Your task to perform on an android device: open a bookmark in the chrome app Image 0: 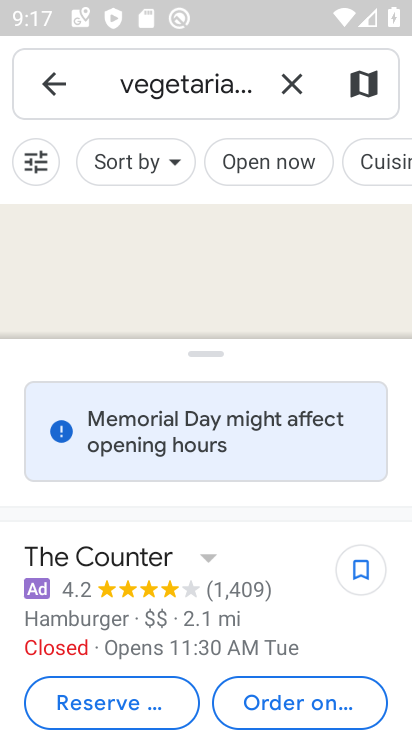
Step 0: press home button
Your task to perform on an android device: open a bookmark in the chrome app Image 1: 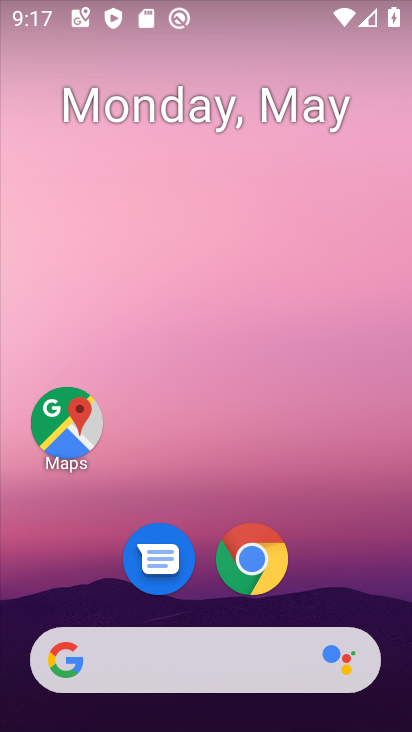
Step 1: click (254, 561)
Your task to perform on an android device: open a bookmark in the chrome app Image 2: 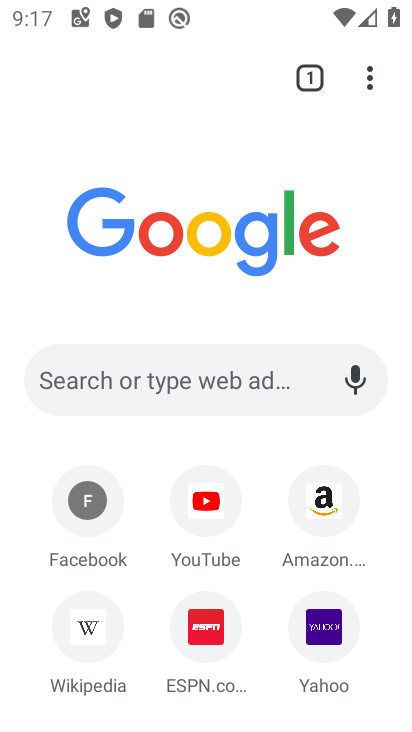
Step 2: click (370, 74)
Your task to perform on an android device: open a bookmark in the chrome app Image 3: 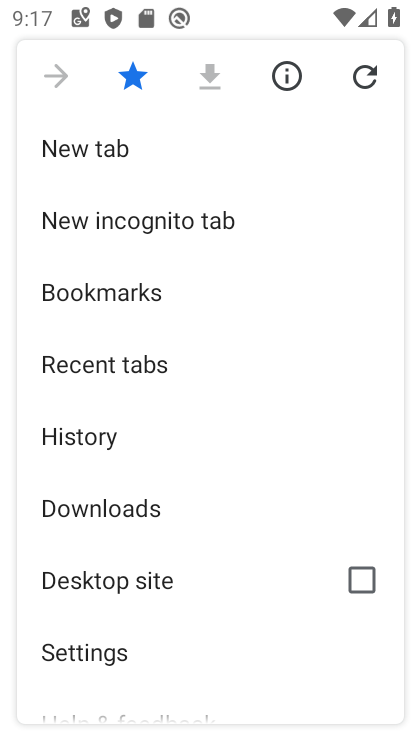
Step 3: click (114, 296)
Your task to perform on an android device: open a bookmark in the chrome app Image 4: 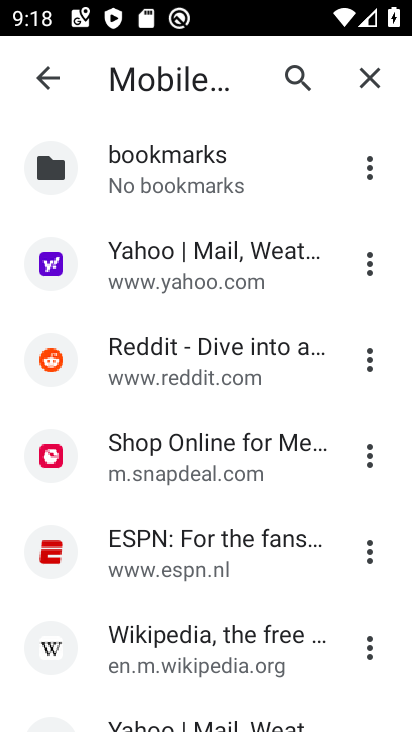
Step 4: task complete